Your task to perform on an android device: See recent photos Image 0: 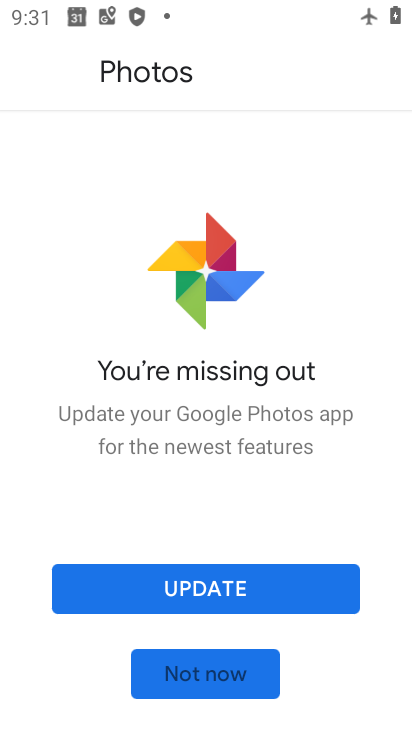
Step 0: press home button
Your task to perform on an android device: See recent photos Image 1: 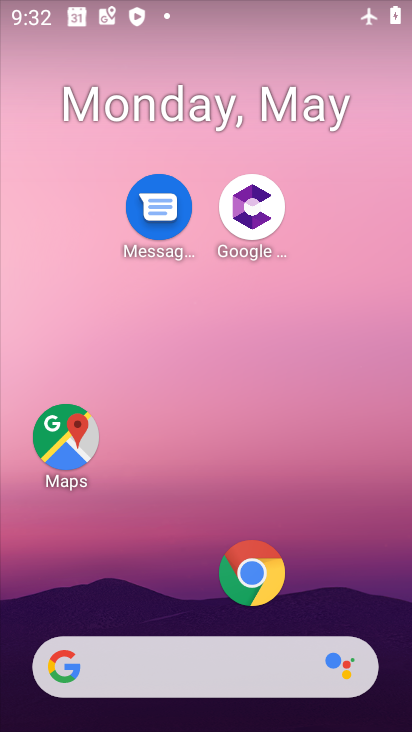
Step 1: drag from (231, 625) to (215, 107)
Your task to perform on an android device: See recent photos Image 2: 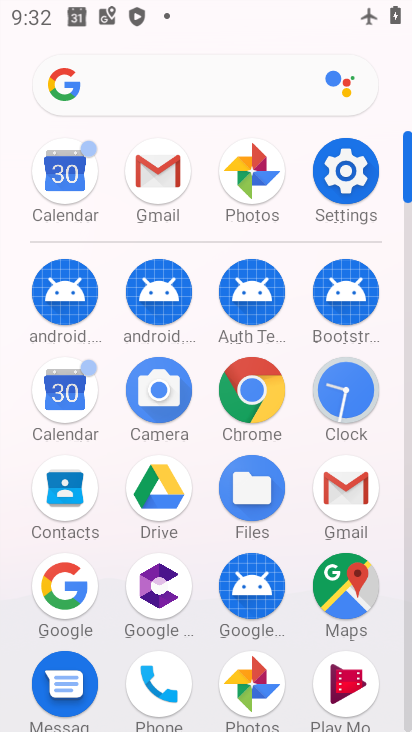
Step 2: drag from (174, 510) to (227, 192)
Your task to perform on an android device: See recent photos Image 3: 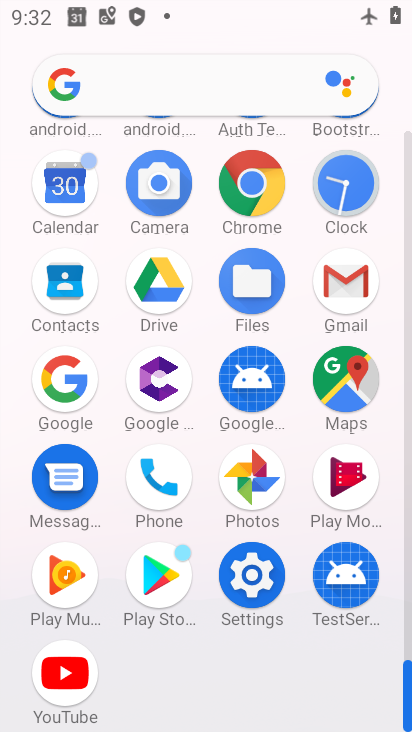
Step 3: click (250, 479)
Your task to perform on an android device: See recent photos Image 4: 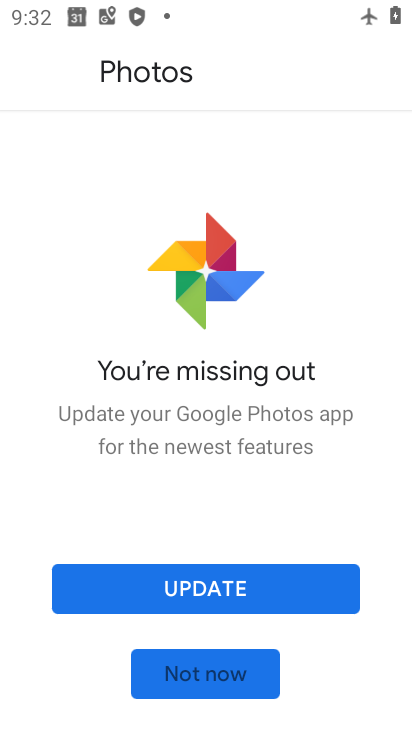
Step 4: click (208, 682)
Your task to perform on an android device: See recent photos Image 5: 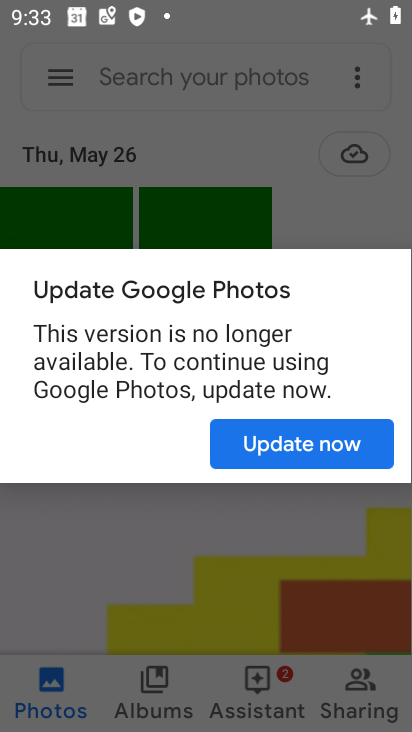
Step 5: task complete